Your task to perform on an android device: check the backup settings in the google photos Image 0: 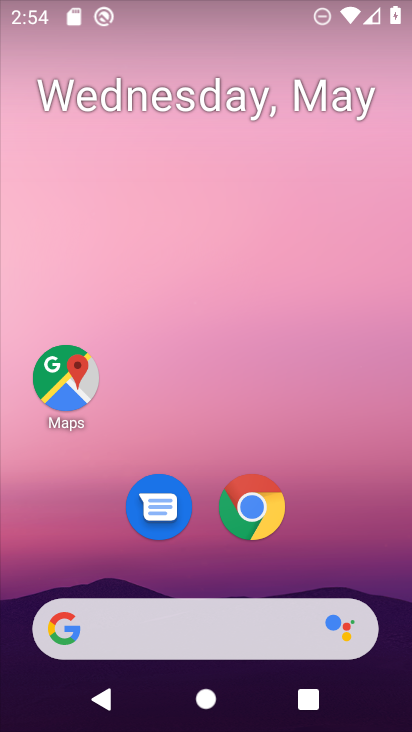
Step 0: click (245, 312)
Your task to perform on an android device: check the backup settings in the google photos Image 1: 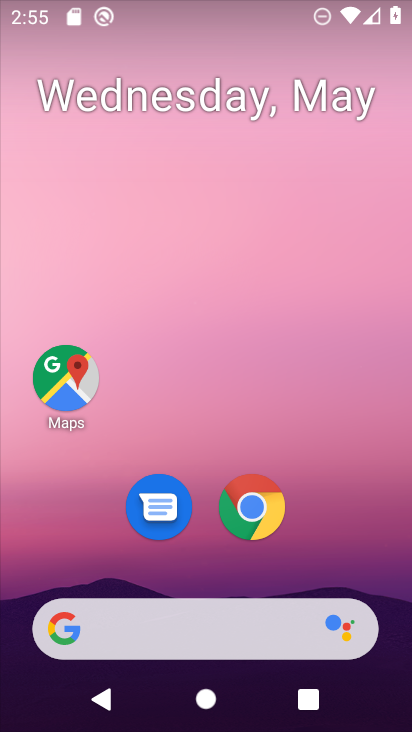
Step 1: drag from (219, 578) to (251, 7)
Your task to perform on an android device: check the backup settings in the google photos Image 2: 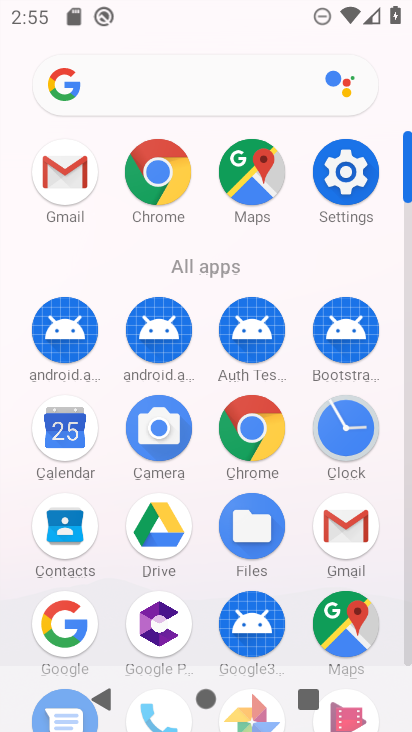
Step 2: drag from (223, 626) to (215, 334)
Your task to perform on an android device: check the backup settings in the google photos Image 3: 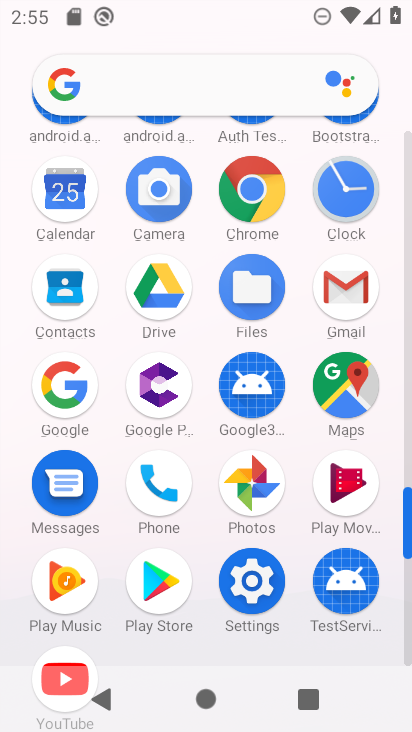
Step 3: click (247, 489)
Your task to perform on an android device: check the backup settings in the google photos Image 4: 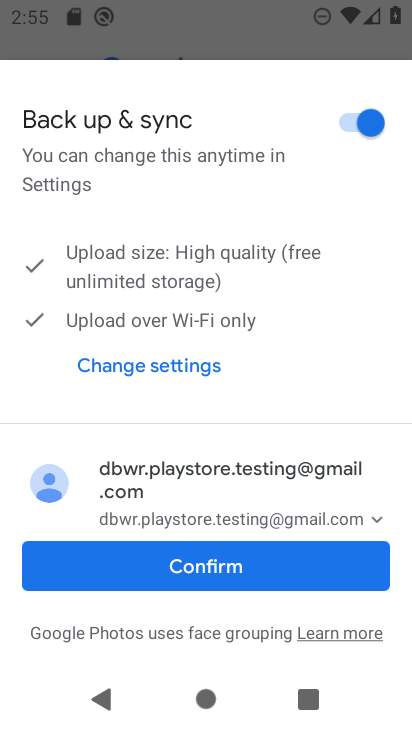
Step 4: click (193, 560)
Your task to perform on an android device: check the backup settings in the google photos Image 5: 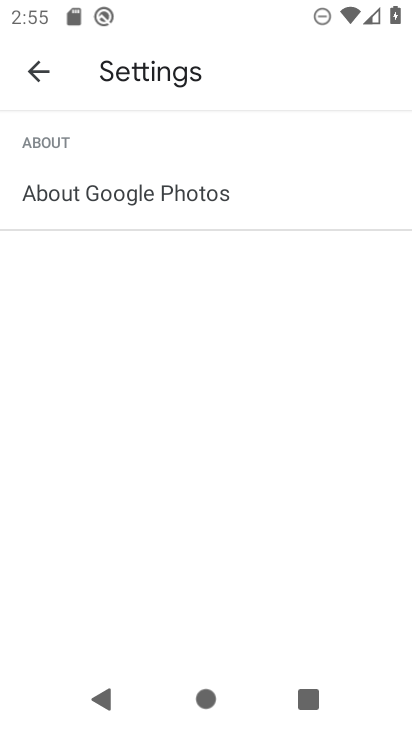
Step 5: click (47, 74)
Your task to perform on an android device: check the backup settings in the google photos Image 6: 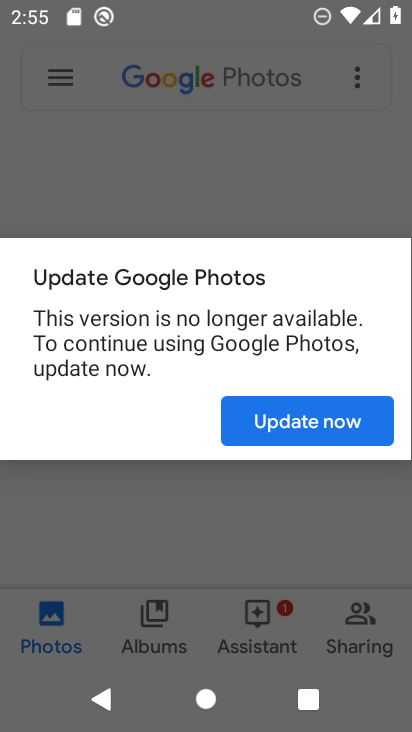
Step 6: click (300, 419)
Your task to perform on an android device: check the backup settings in the google photos Image 7: 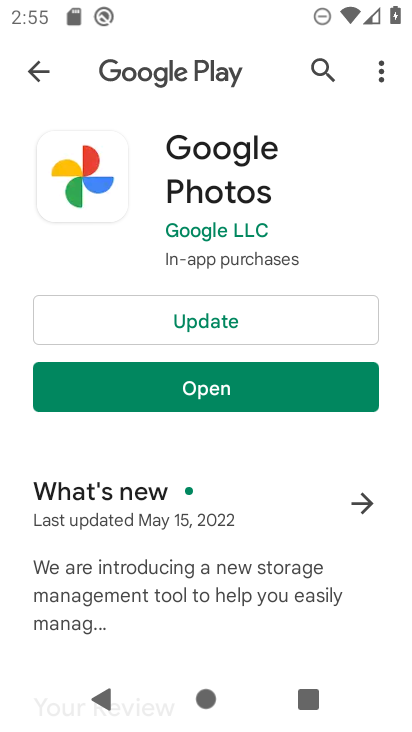
Step 7: click (230, 393)
Your task to perform on an android device: check the backup settings in the google photos Image 8: 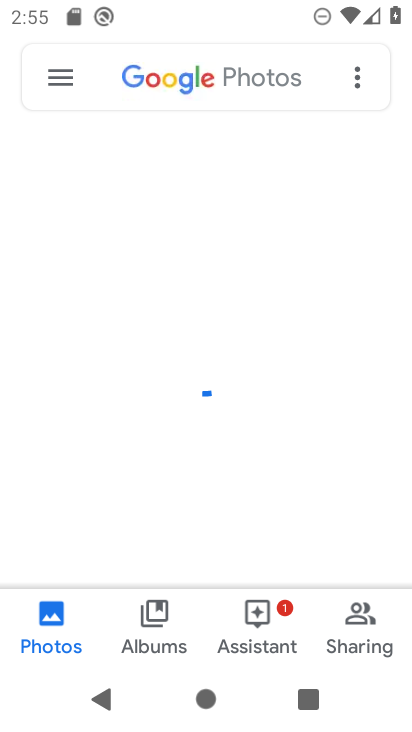
Step 8: click (64, 93)
Your task to perform on an android device: check the backup settings in the google photos Image 9: 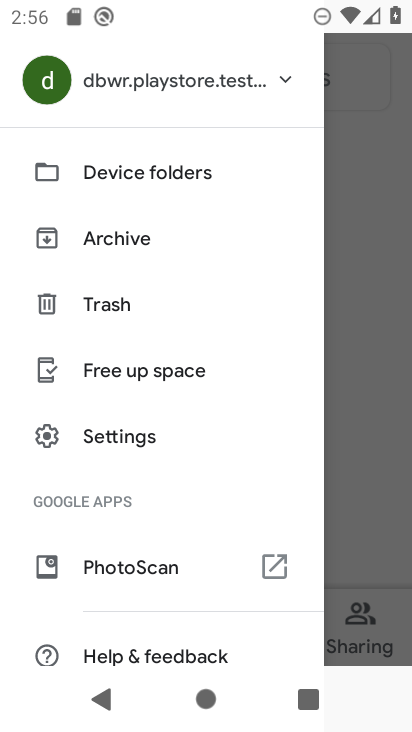
Step 9: click (124, 438)
Your task to perform on an android device: check the backup settings in the google photos Image 10: 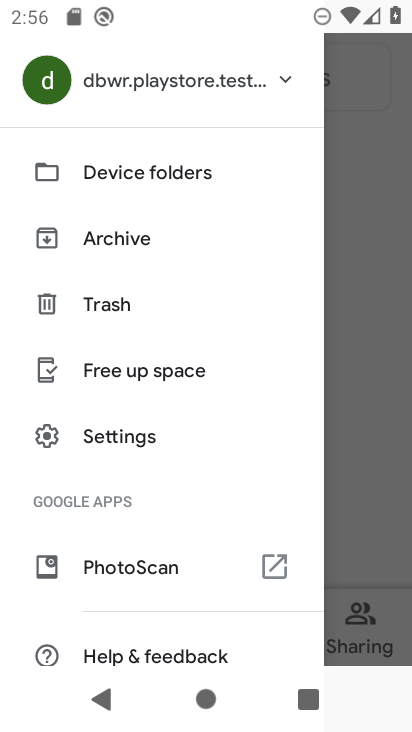
Step 10: click (123, 445)
Your task to perform on an android device: check the backup settings in the google photos Image 11: 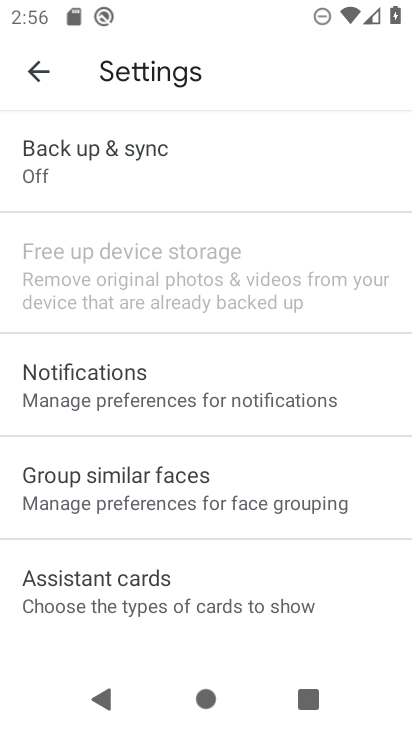
Step 11: click (112, 175)
Your task to perform on an android device: check the backup settings in the google photos Image 12: 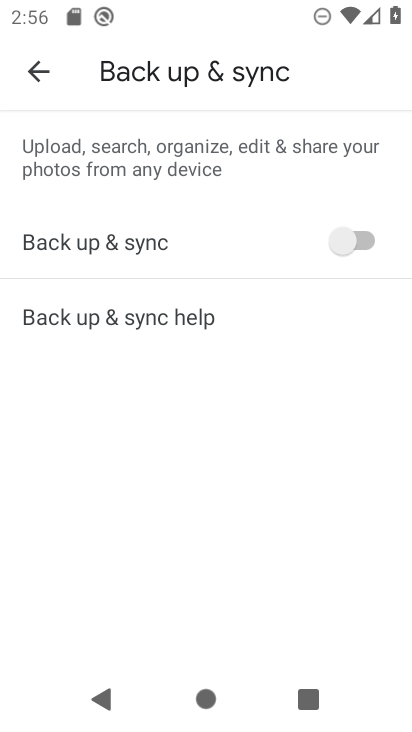
Step 12: task complete